Your task to perform on an android device: Open accessibility settings Image 0: 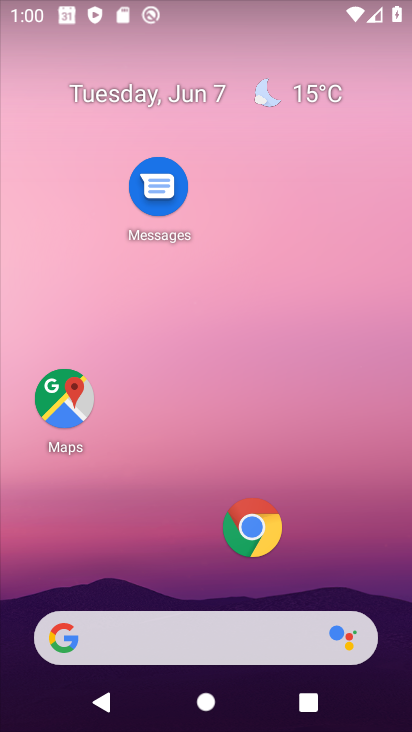
Step 0: drag from (258, 612) to (258, 150)
Your task to perform on an android device: Open accessibility settings Image 1: 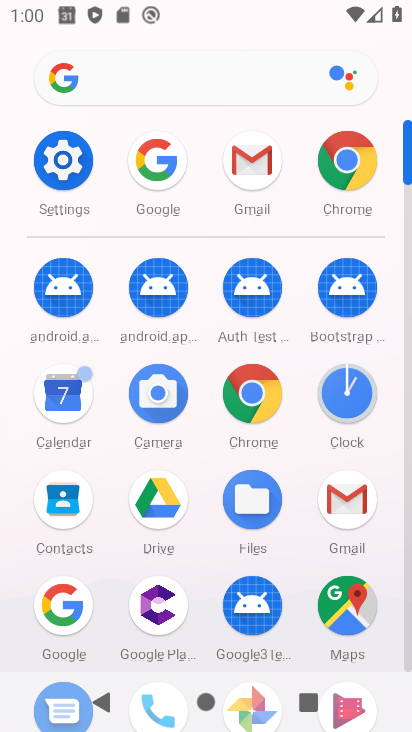
Step 1: click (76, 164)
Your task to perform on an android device: Open accessibility settings Image 2: 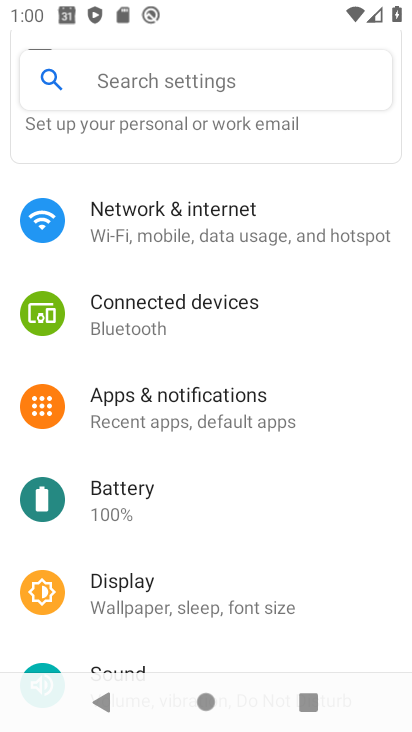
Step 2: drag from (164, 640) to (163, 296)
Your task to perform on an android device: Open accessibility settings Image 3: 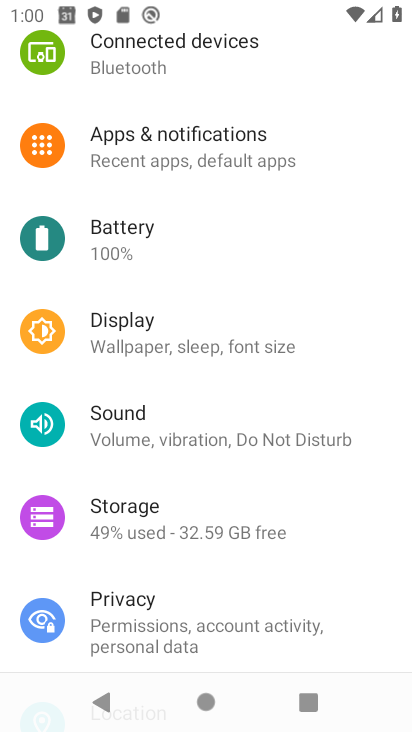
Step 3: drag from (187, 642) to (176, 307)
Your task to perform on an android device: Open accessibility settings Image 4: 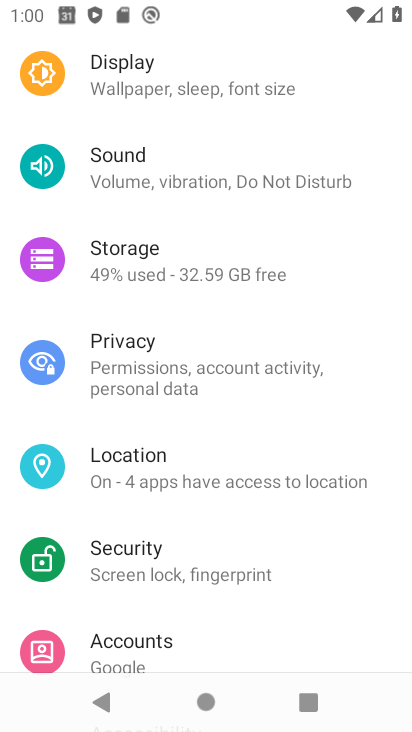
Step 4: drag from (160, 632) to (144, 334)
Your task to perform on an android device: Open accessibility settings Image 5: 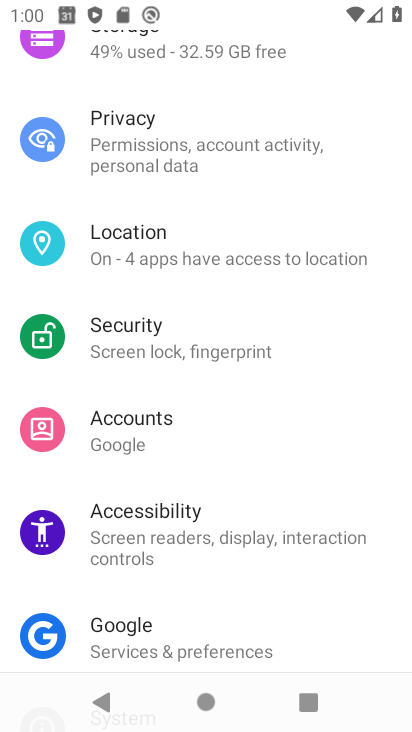
Step 5: click (177, 543)
Your task to perform on an android device: Open accessibility settings Image 6: 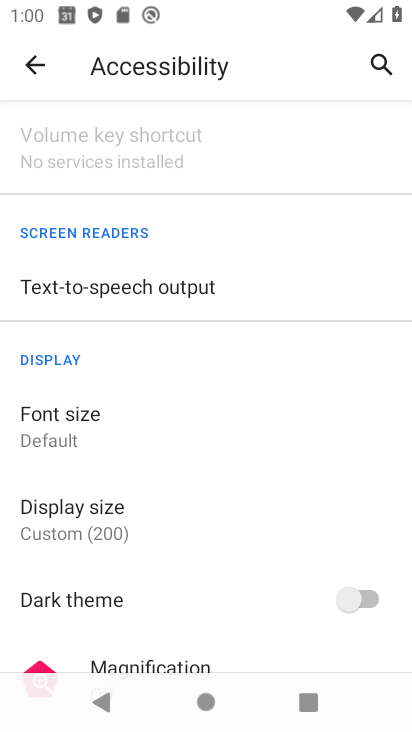
Step 6: task complete